Your task to perform on an android device: open app "Facebook Lite" Image 0: 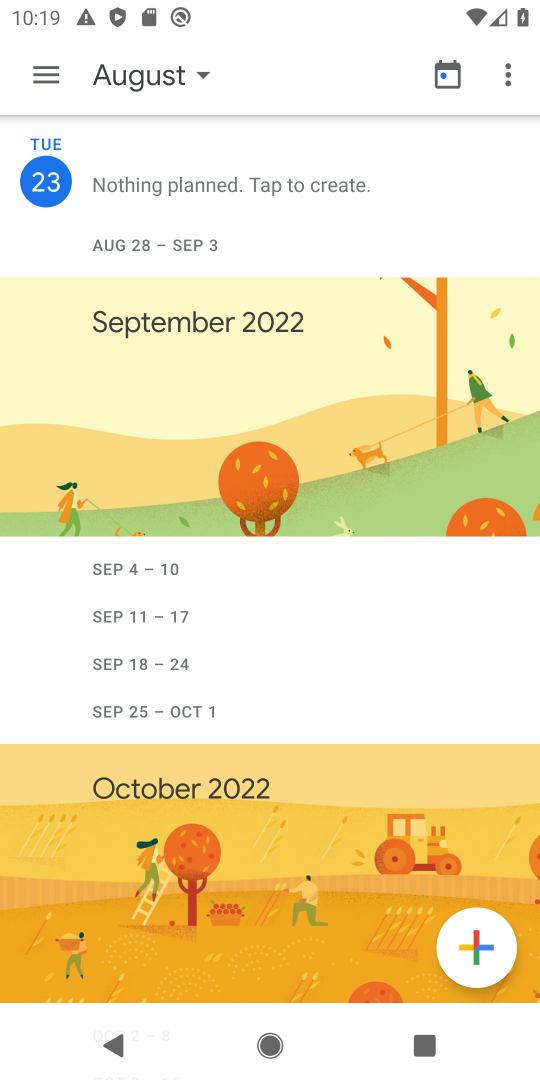
Step 0: press home button
Your task to perform on an android device: open app "Facebook Lite" Image 1: 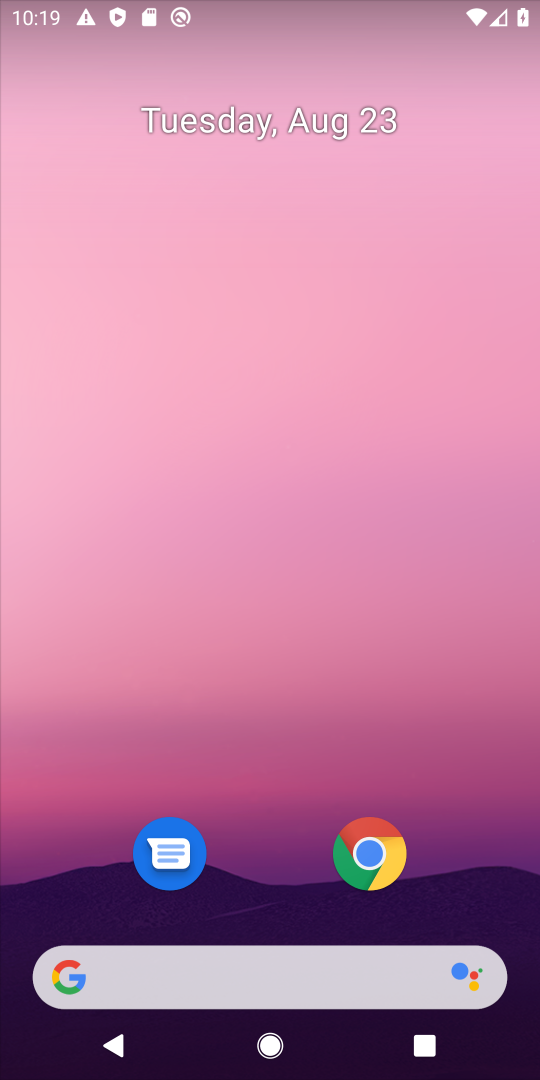
Step 1: drag from (247, 805) to (357, 4)
Your task to perform on an android device: open app "Facebook Lite" Image 2: 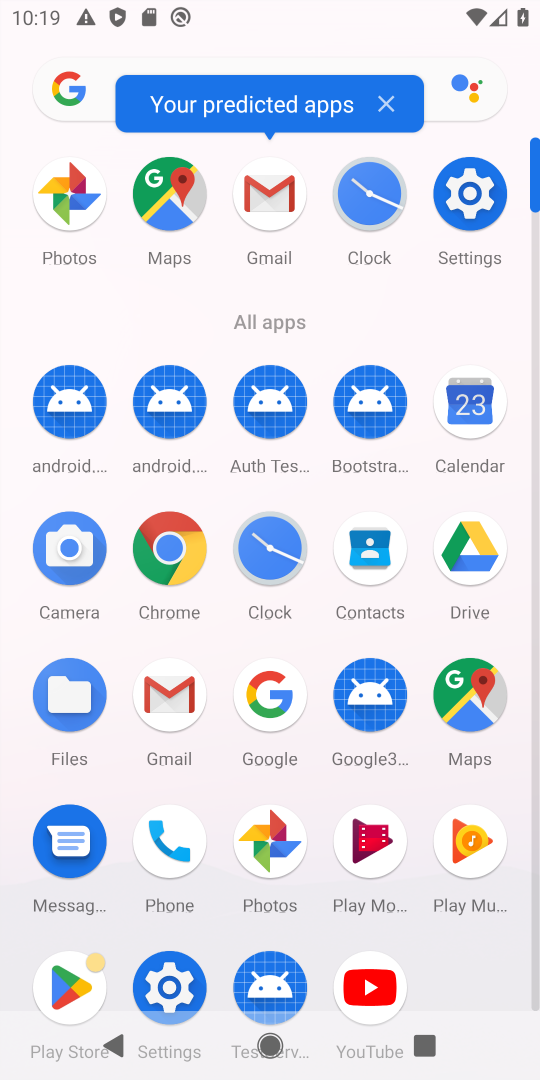
Step 2: drag from (353, 731) to (452, 64)
Your task to perform on an android device: open app "Facebook Lite" Image 3: 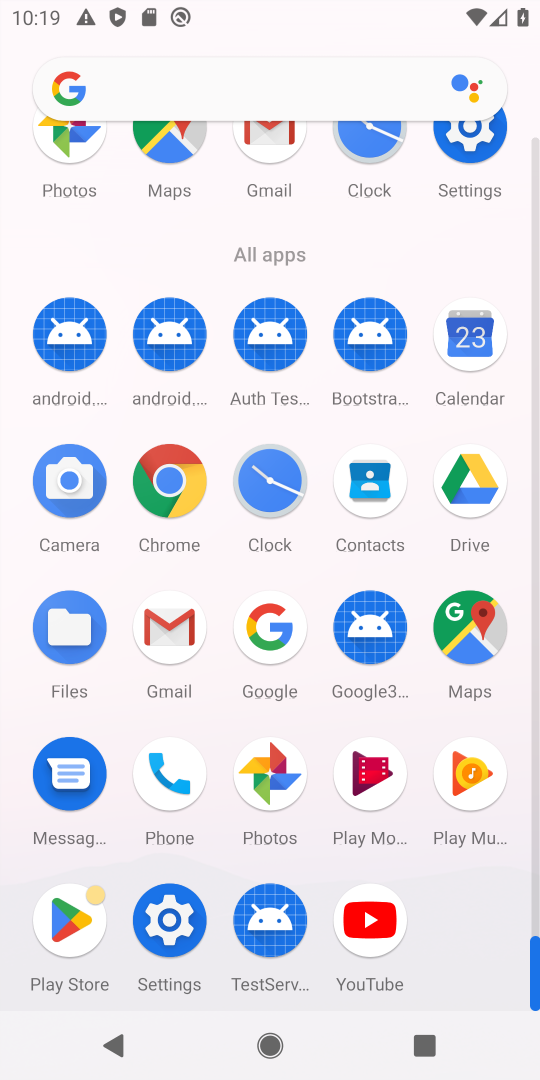
Step 3: click (76, 927)
Your task to perform on an android device: open app "Facebook Lite" Image 4: 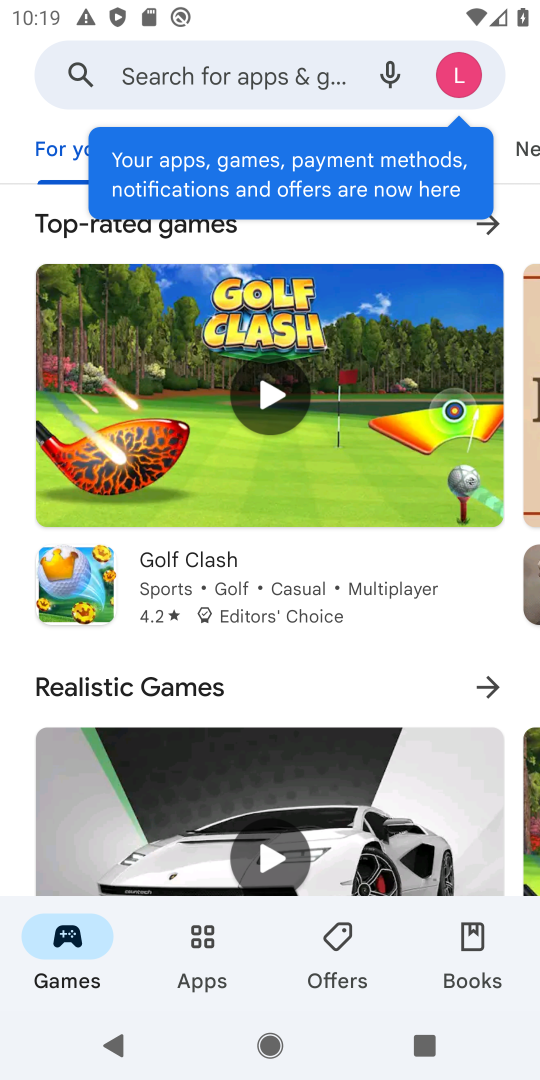
Step 4: click (265, 73)
Your task to perform on an android device: open app "Facebook Lite" Image 5: 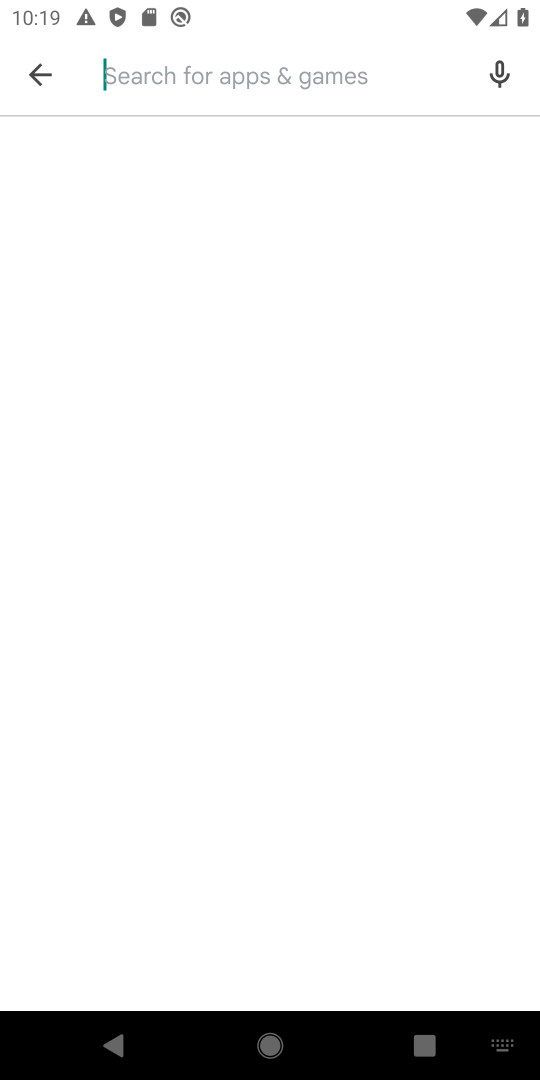
Step 5: type "Facebook Lite"
Your task to perform on an android device: open app "Facebook Lite" Image 6: 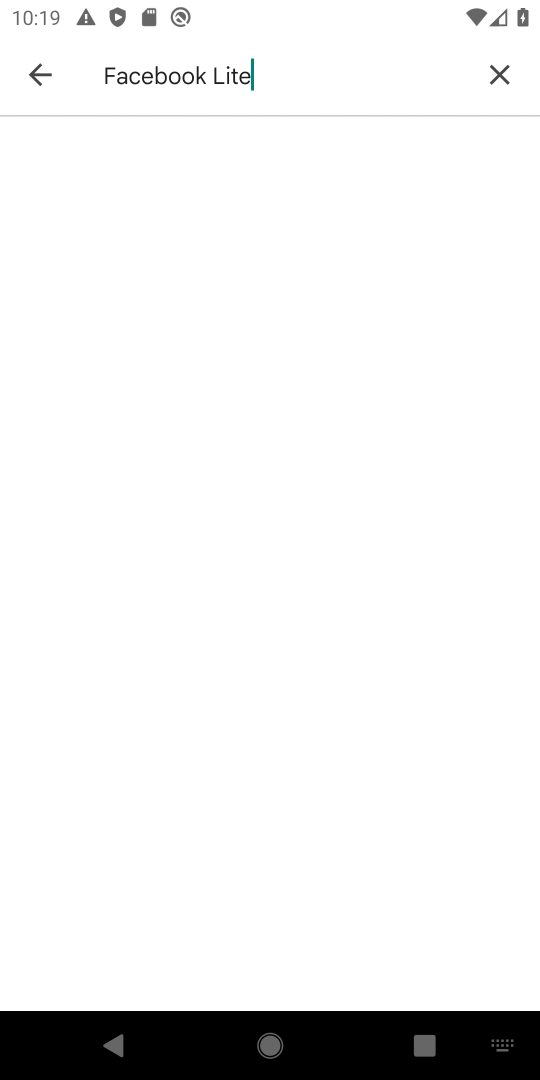
Step 6: press enter
Your task to perform on an android device: open app "Facebook Lite" Image 7: 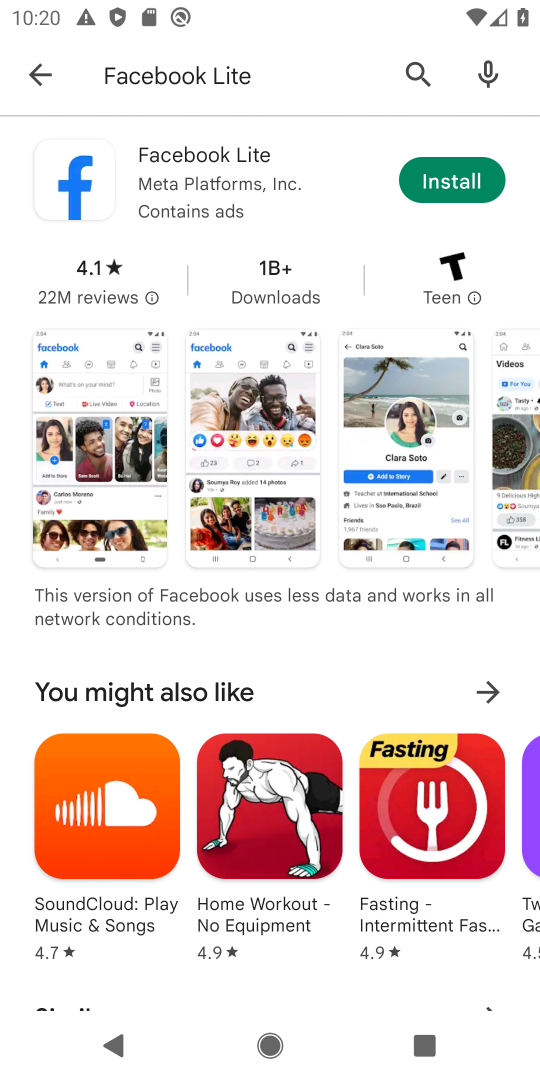
Step 7: task complete